Your task to perform on an android device: toggle wifi Image 0: 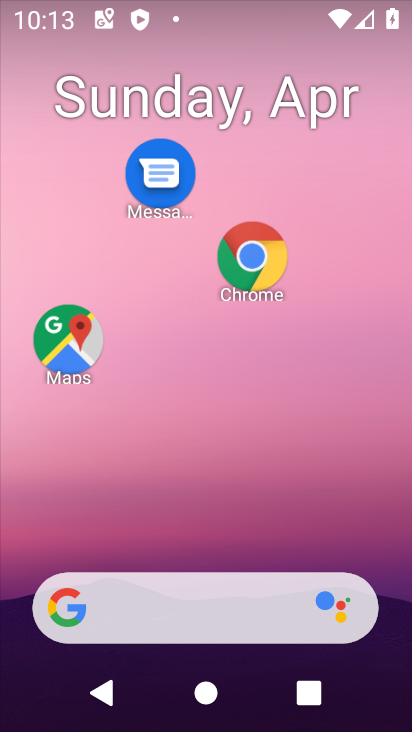
Step 0: drag from (225, 723) to (203, 143)
Your task to perform on an android device: toggle wifi Image 1: 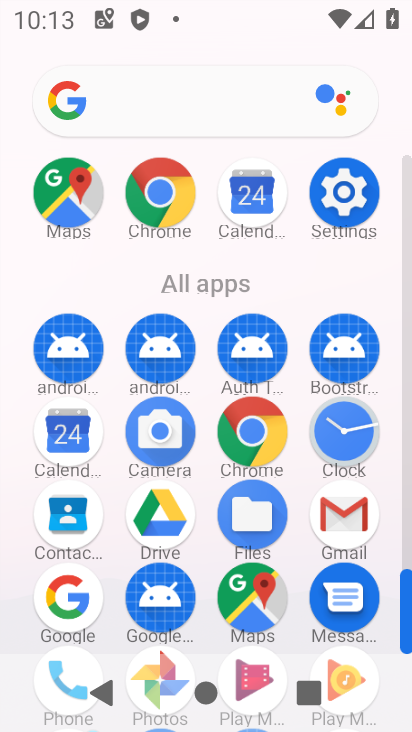
Step 1: click (343, 187)
Your task to perform on an android device: toggle wifi Image 2: 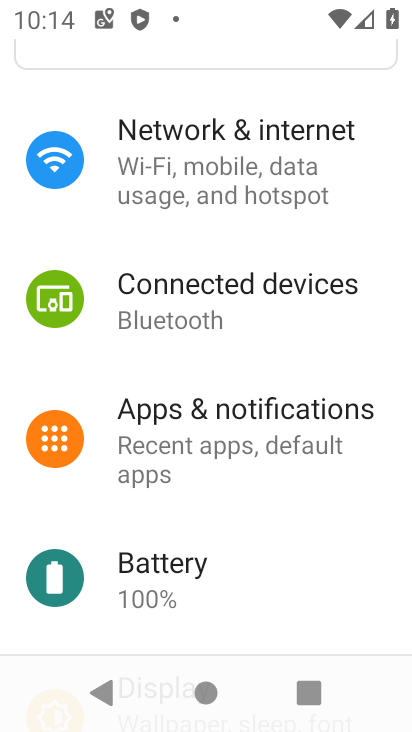
Step 2: drag from (248, 138) to (235, 483)
Your task to perform on an android device: toggle wifi Image 3: 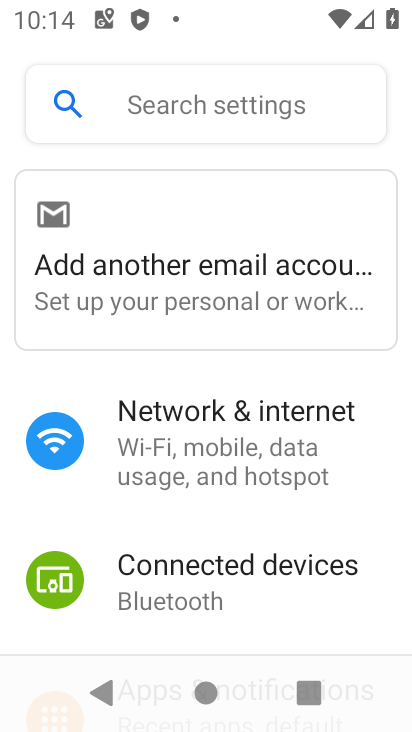
Step 3: click (233, 425)
Your task to perform on an android device: toggle wifi Image 4: 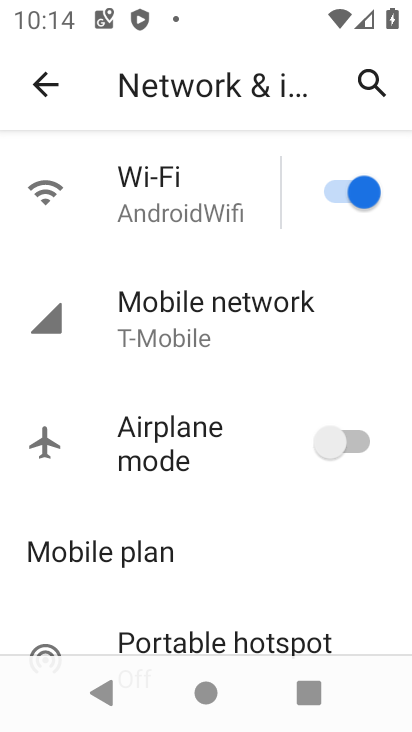
Step 4: click (336, 185)
Your task to perform on an android device: toggle wifi Image 5: 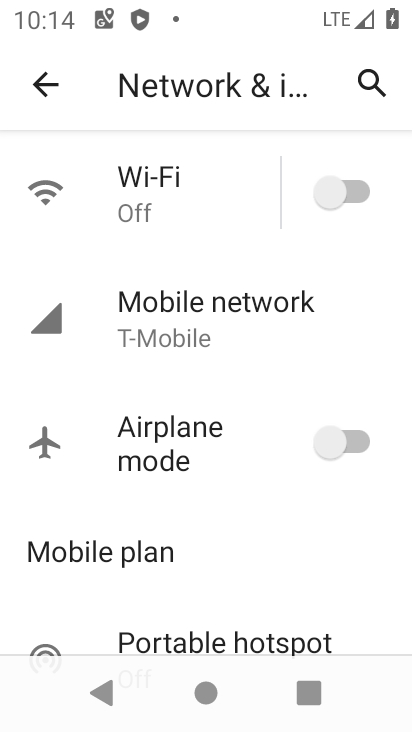
Step 5: task complete